Your task to perform on an android device: Open Maps and search for coffee Image 0: 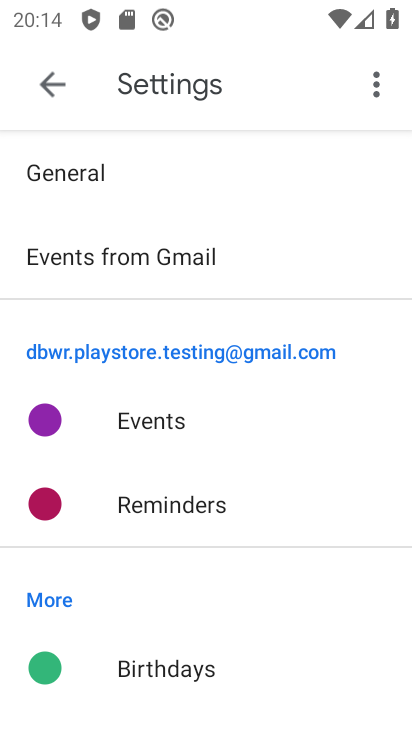
Step 0: press home button
Your task to perform on an android device: Open Maps and search for coffee Image 1: 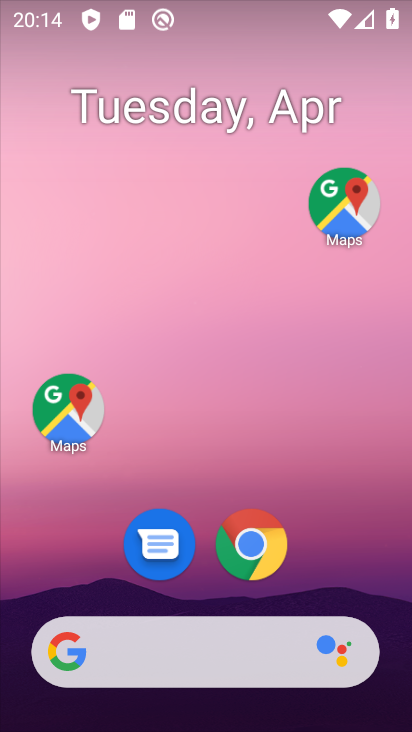
Step 1: drag from (201, 629) to (354, 60)
Your task to perform on an android device: Open Maps and search for coffee Image 2: 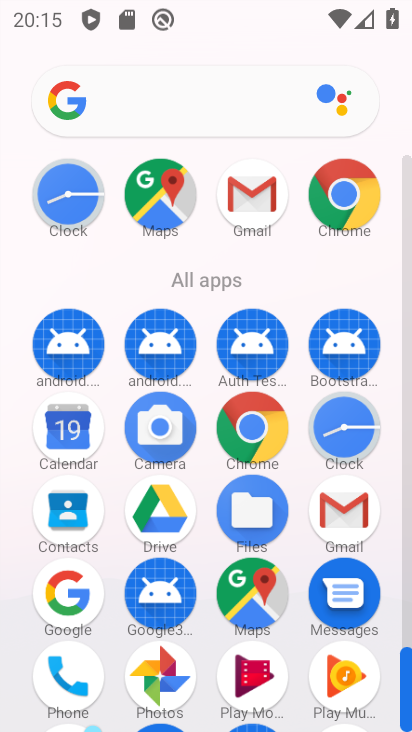
Step 2: click (160, 207)
Your task to perform on an android device: Open Maps and search for coffee Image 3: 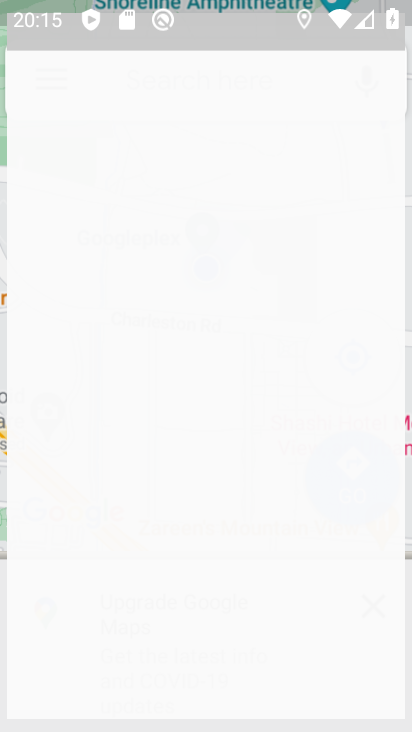
Step 3: click (148, 86)
Your task to perform on an android device: Open Maps and search for coffee Image 4: 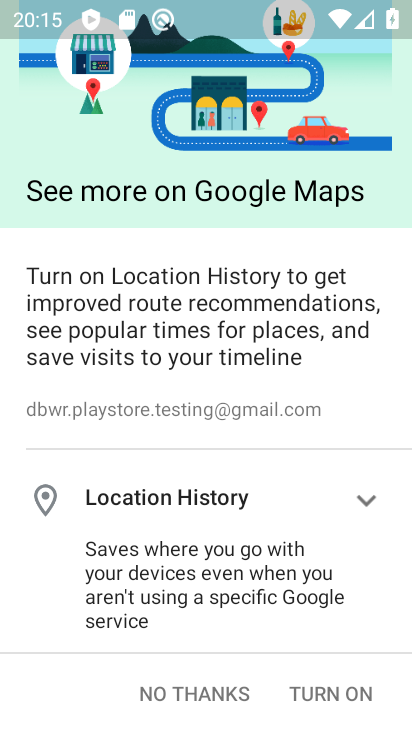
Step 4: press back button
Your task to perform on an android device: Open Maps and search for coffee Image 5: 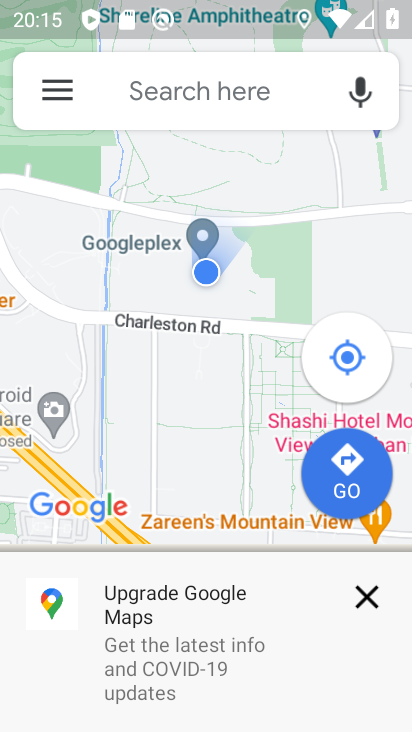
Step 5: click (144, 84)
Your task to perform on an android device: Open Maps and search for coffee Image 6: 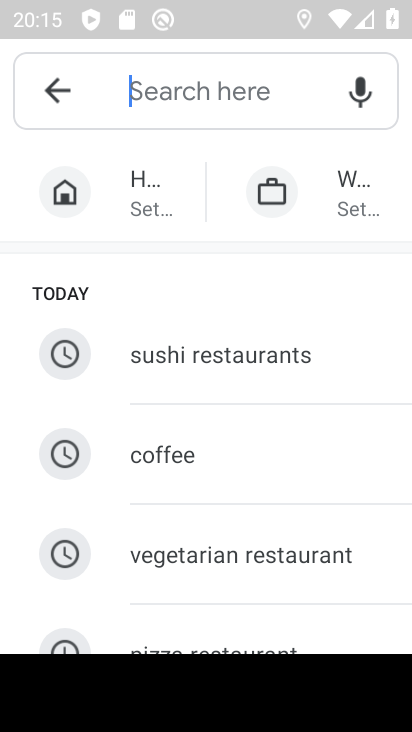
Step 6: click (159, 451)
Your task to perform on an android device: Open Maps and search for coffee Image 7: 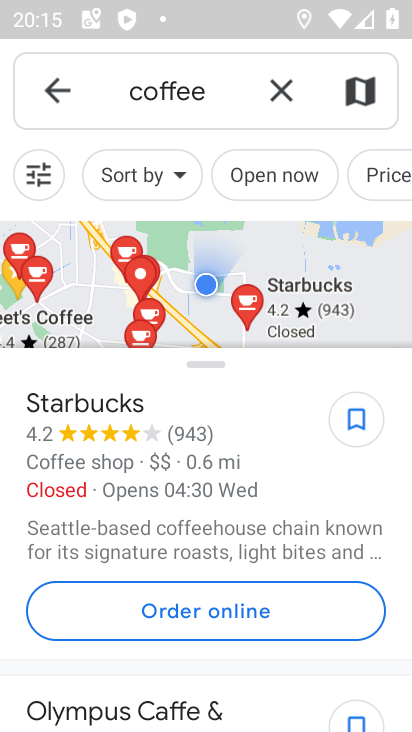
Step 7: task complete